Your task to perform on an android device: Open CNN.com Image 0: 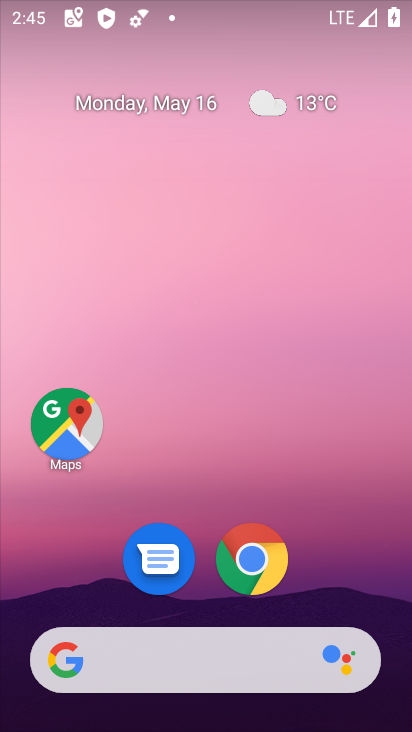
Step 0: click (251, 571)
Your task to perform on an android device: Open CNN.com Image 1: 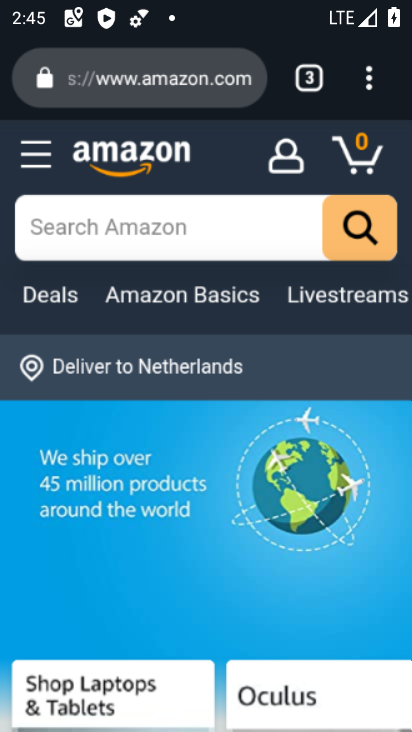
Step 1: click (309, 84)
Your task to perform on an android device: Open CNN.com Image 2: 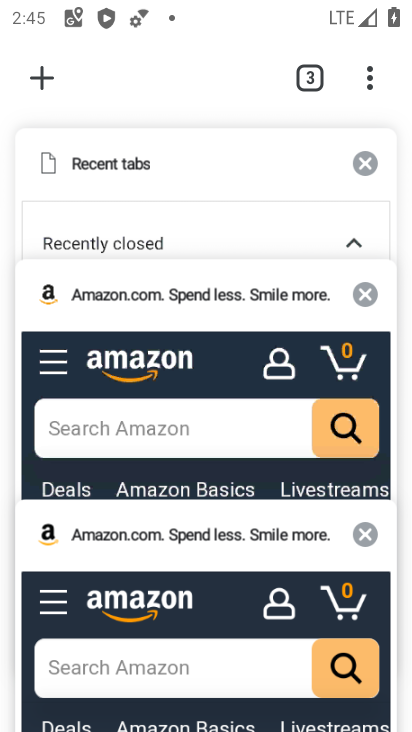
Step 2: click (199, 179)
Your task to perform on an android device: Open CNN.com Image 3: 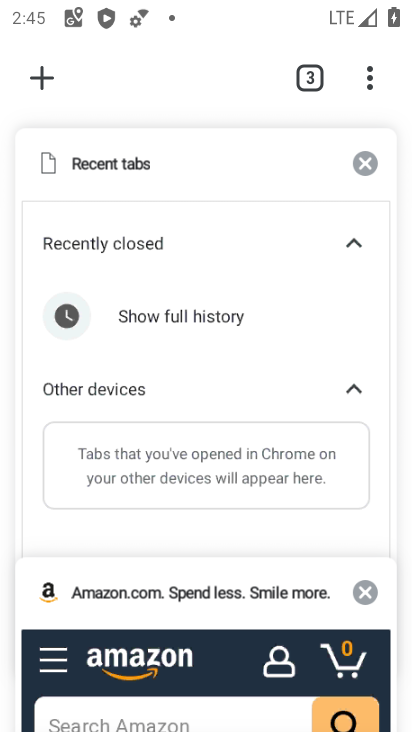
Step 3: click (190, 175)
Your task to perform on an android device: Open CNN.com Image 4: 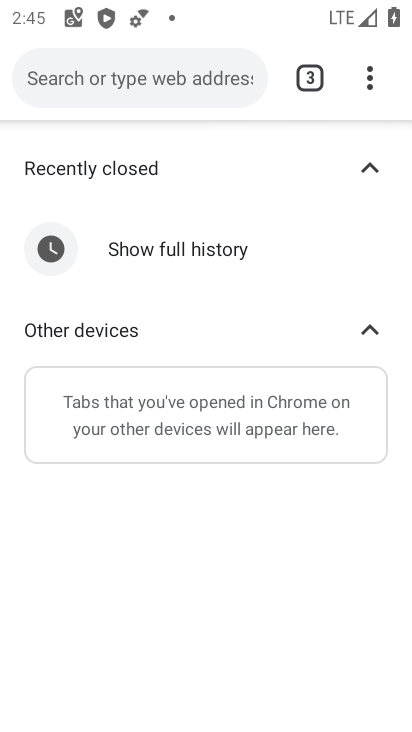
Step 4: click (197, 81)
Your task to perform on an android device: Open CNN.com Image 5: 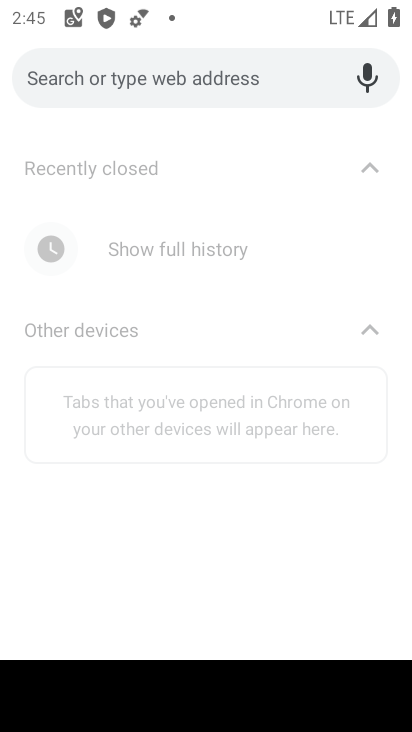
Step 5: type "cnn.com"
Your task to perform on an android device: Open CNN.com Image 6: 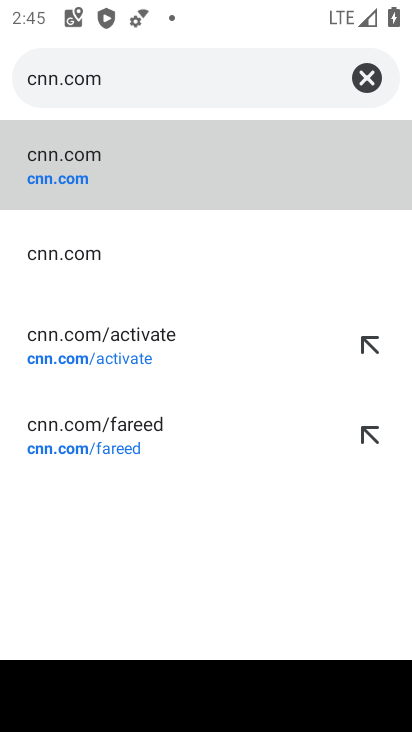
Step 6: click (102, 174)
Your task to perform on an android device: Open CNN.com Image 7: 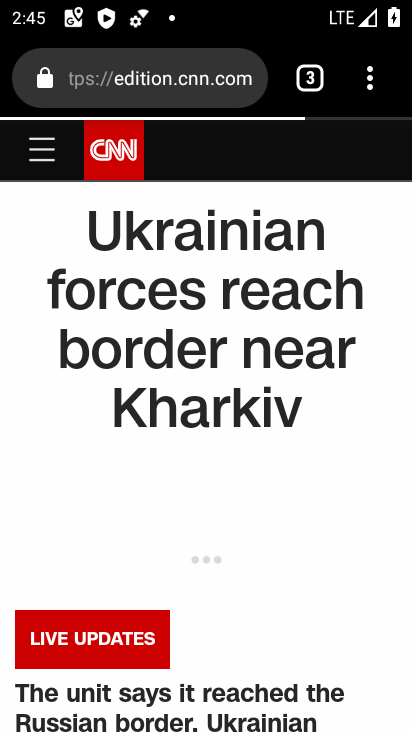
Step 7: task complete